Your task to perform on an android device: Clear the shopping cart on walmart. Search for macbook pro 15 inch on walmart, select the first entry, add it to the cart, then select checkout. Image 0: 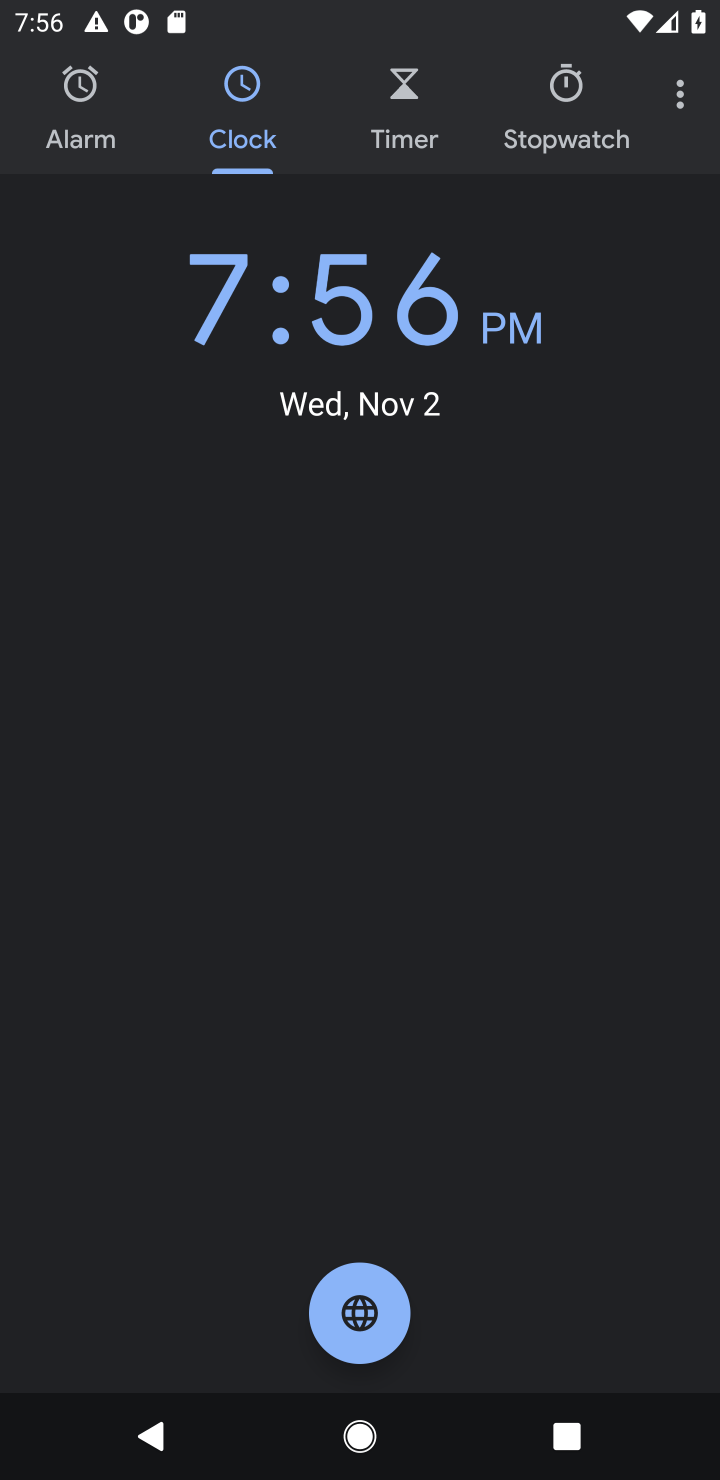
Step 0: press home button
Your task to perform on an android device: Clear the shopping cart on walmart. Search for macbook pro 15 inch on walmart, select the first entry, add it to the cart, then select checkout. Image 1: 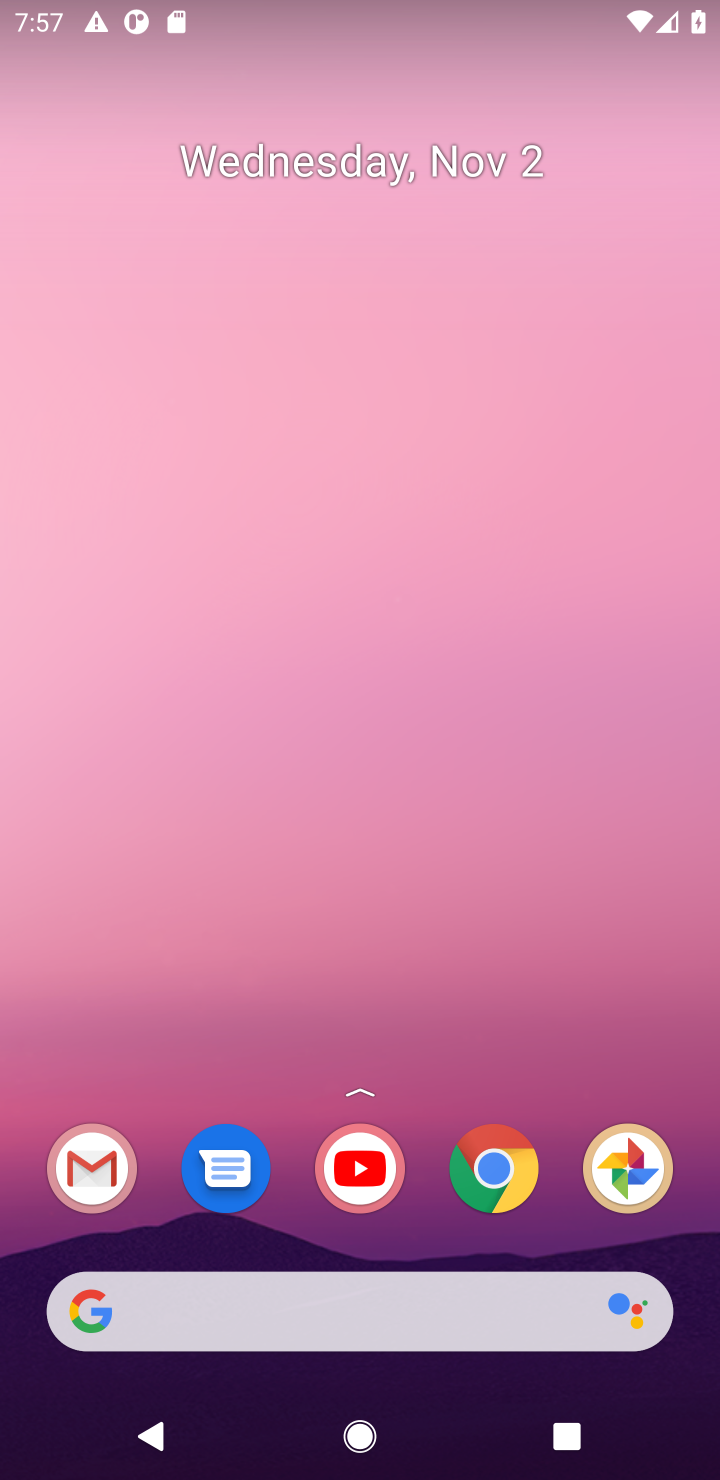
Step 1: click (497, 1168)
Your task to perform on an android device: Clear the shopping cart on walmart. Search for macbook pro 15 inch on walmart, select the first entry, add it to the cart, then select checkout. Image 2: 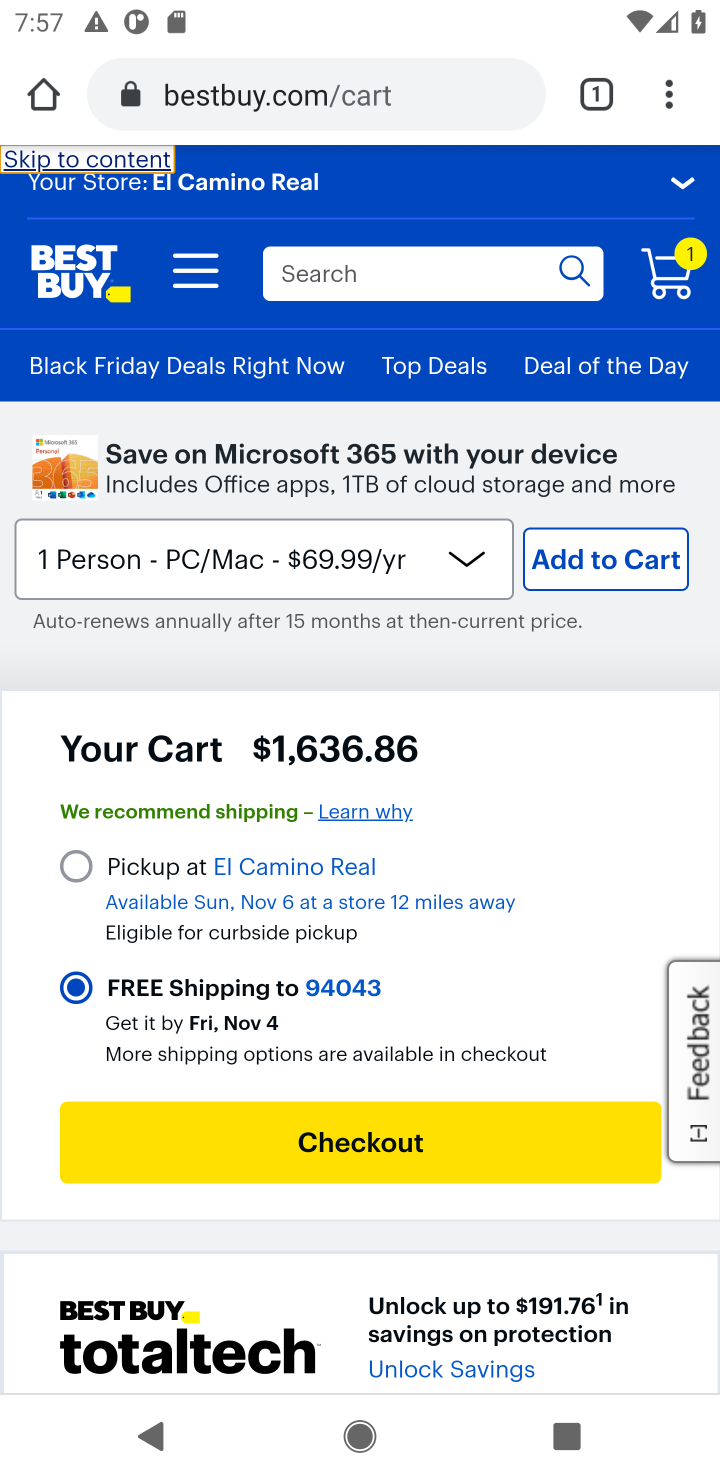
Step 2: click (404, 107)
Your task to perform on an android device: Clear the shopping cart on walmart. Search for macbook pro 15 inch on walmart, select the first entry, add it to the cart, then select checkout. Image 3: 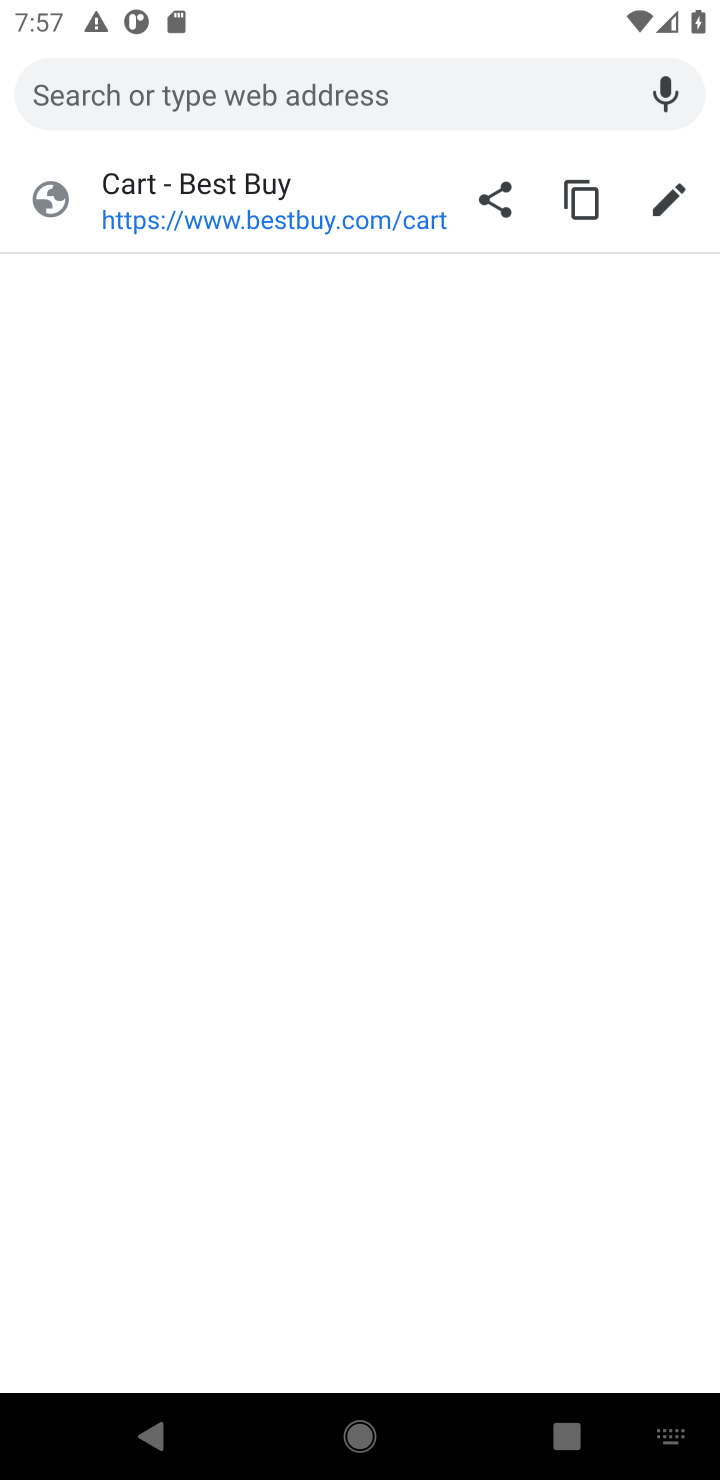
Step 3: type "walmart"
Your task to perform on an android device: Clear the shopping cart on walmart. Search for macbook pro 15 inch on walmart, select the first entry, add it to the cart, then select checkout. Image 4: 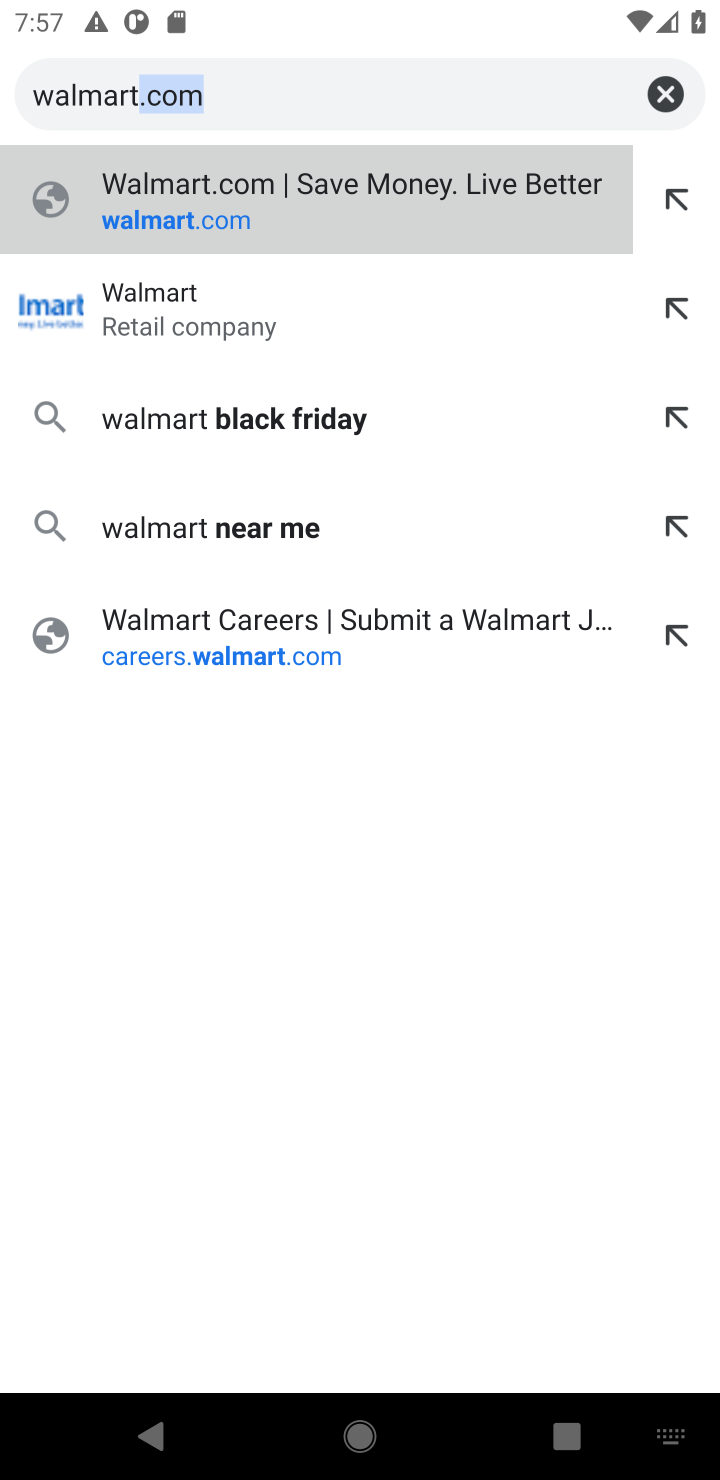
Step 4: click (182, 303)
Your task to perform on an android device: Clear the shopping cart on walmart. Search for macbook pro 15 inch on walmart, select the first entry, add it to the cart, then select checkout. Image 5: 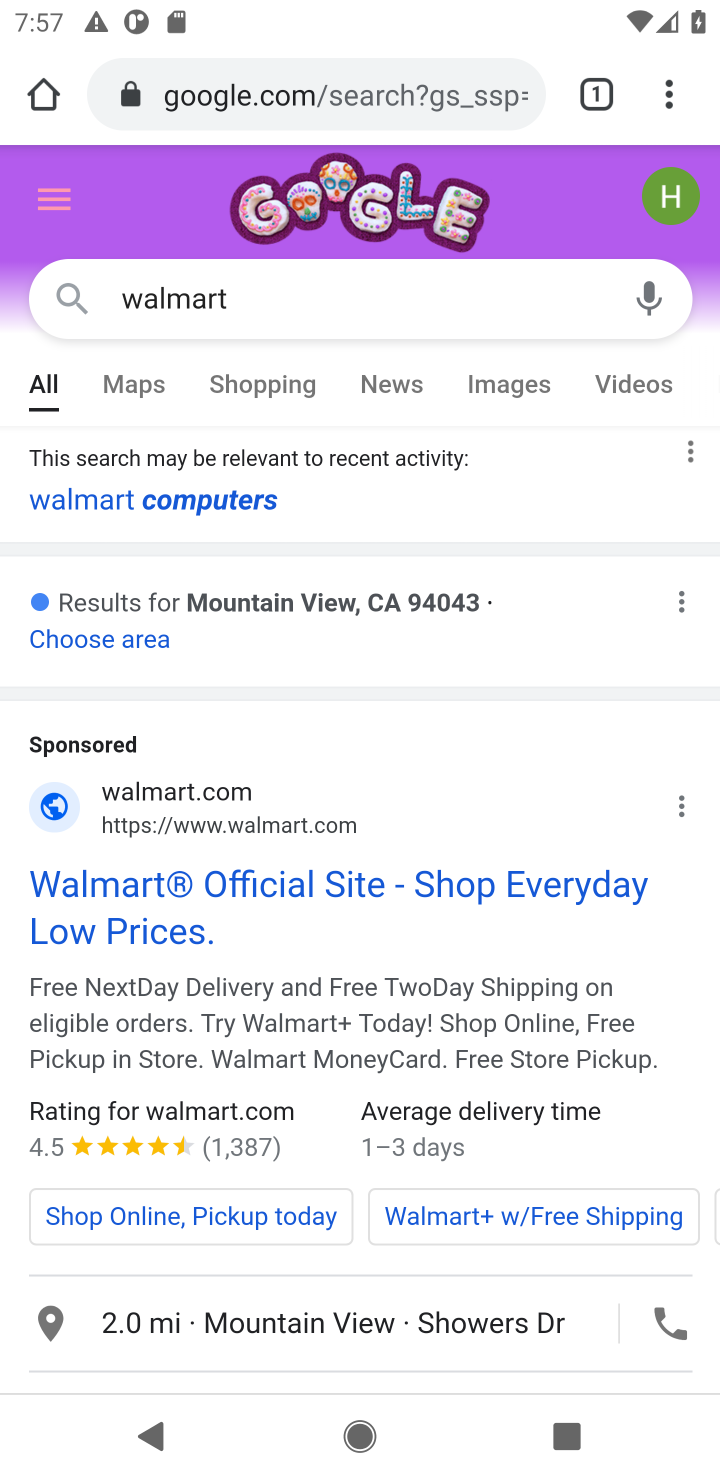
Step 5: drag from (320, 881) to (399, 412)
Your task to perform on an android device: Clear the shopping cart on walmart. Search for macbook pro 15 inch on walmart, select the first entry, add it to the cart, then select checkout. Image 6: 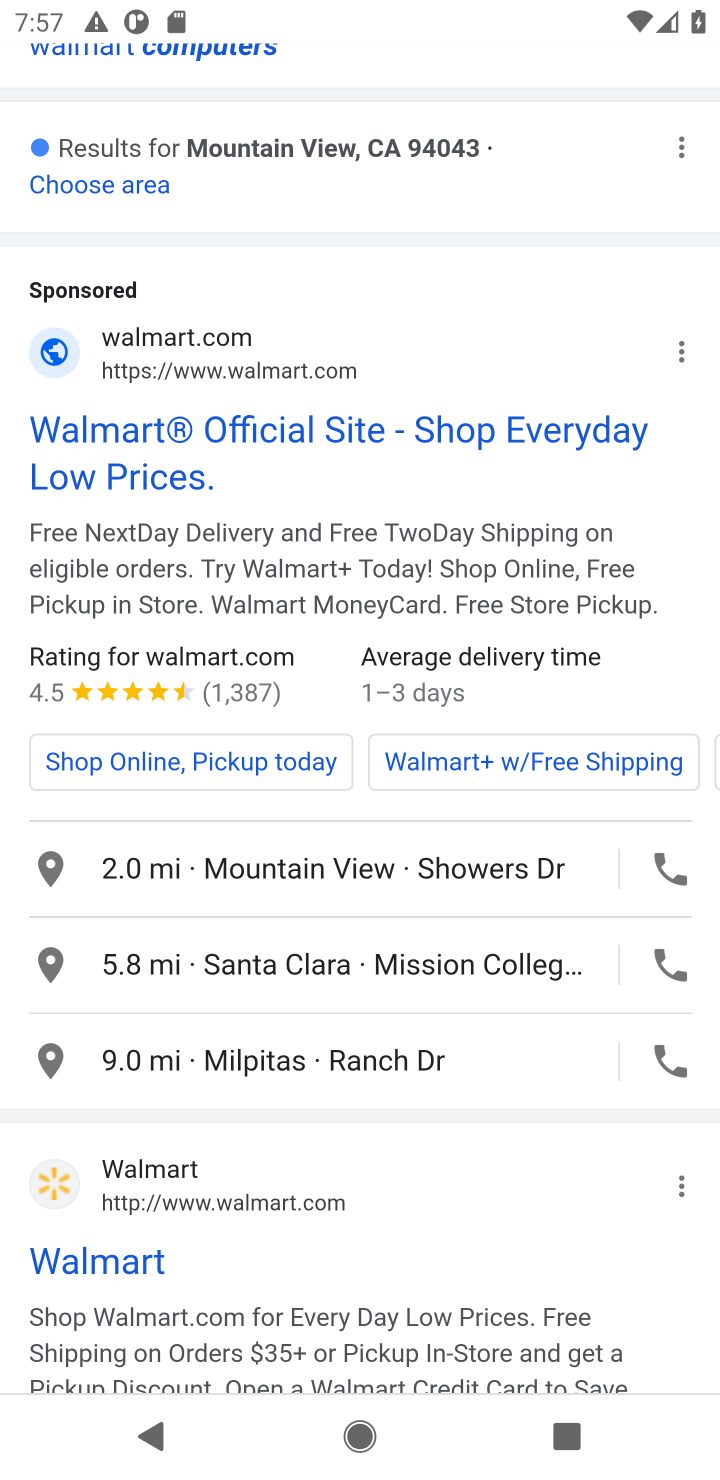
Step 6: click (263, 1260)
Your task to perform on an android device: Clear the shopping cart on walmart. Search for macbook pro 15 inch on walmart, select the first entry, add it to the cart, then select checkout. Image 7: 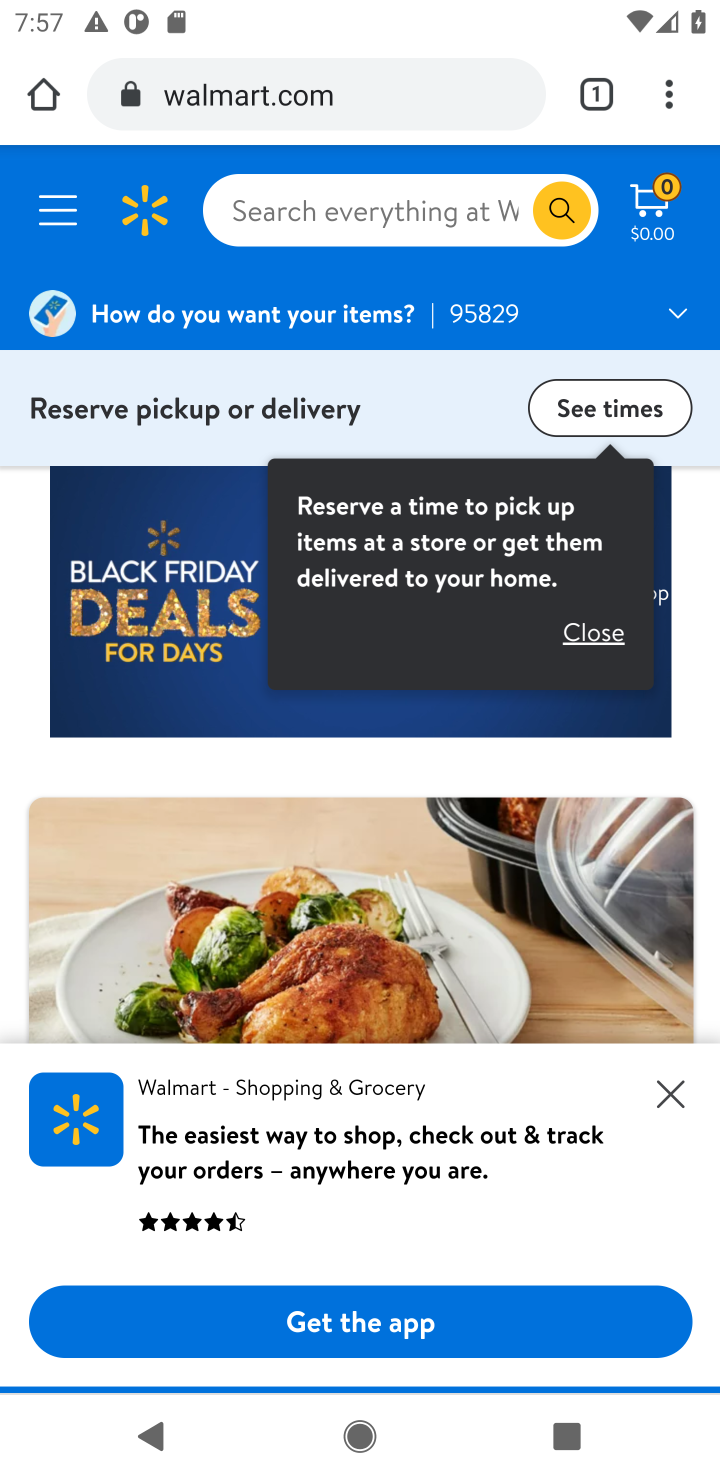
Step 7: click (653, 197)
Your task to perform on an android device: Clear the shopping cart on walmart. Search for macbook pro 15 inch on walmart, select the first entry, add it to the cart, then select checkout. Image 8: 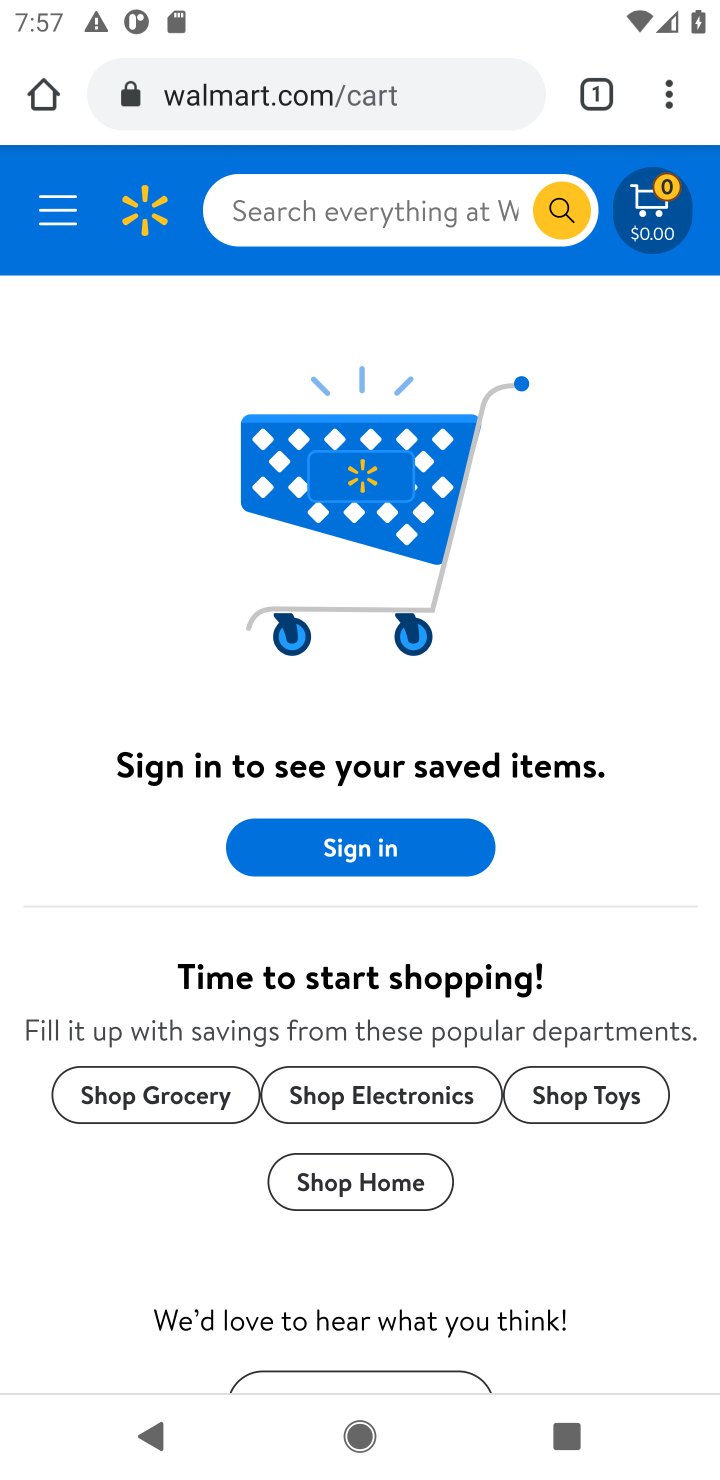
Step 8: click (374, 220)
Your task to perform on an android device: Clear the shopping cart on walmart. Search for macbook pro 15 inch on walmart, select the first entry, add it to the cart, then select checkout. Image 9: 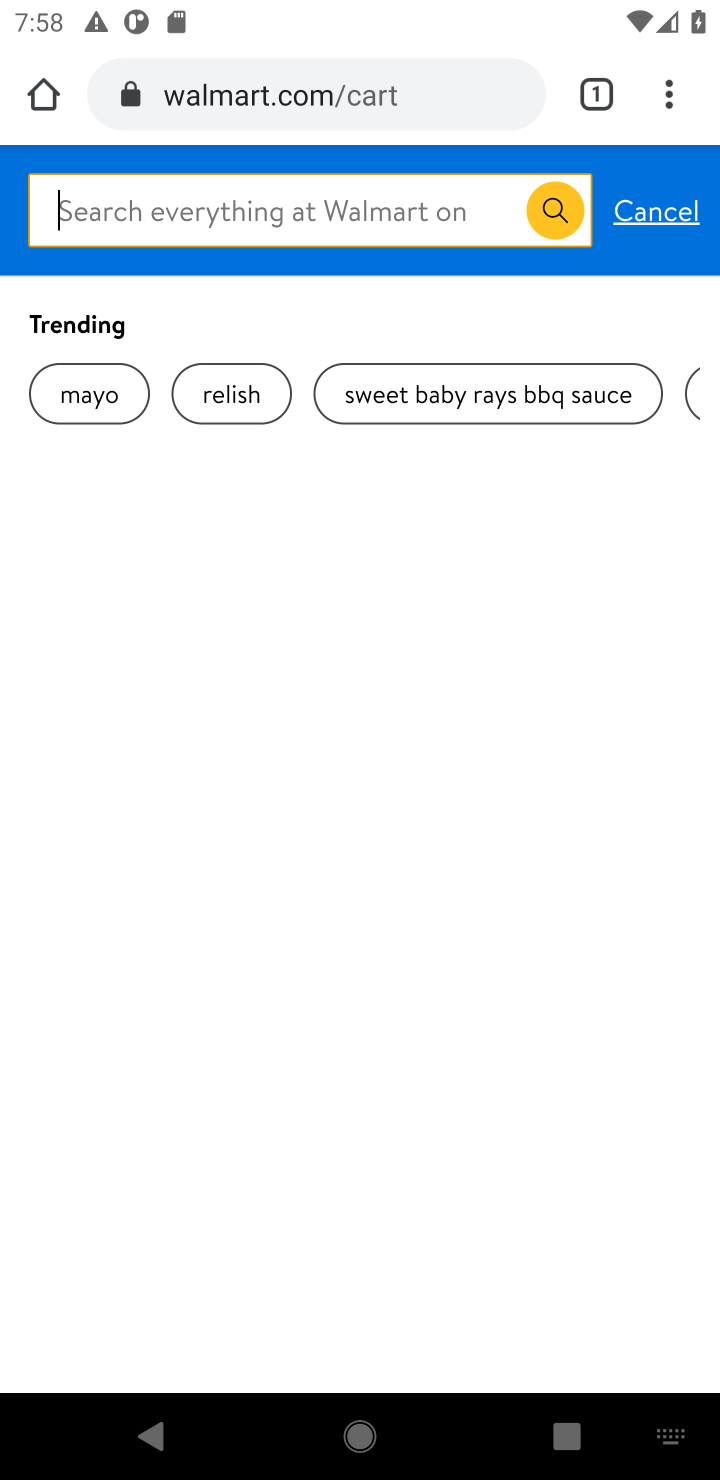
Step 9: type "macbook pro 15 inch"
Your task to perform on an android device: Clear the shopping cart on walmart. Search for macbook pro 15 inch on walmart, select the first entry, add it to the cart, then select checkout. Image 10: 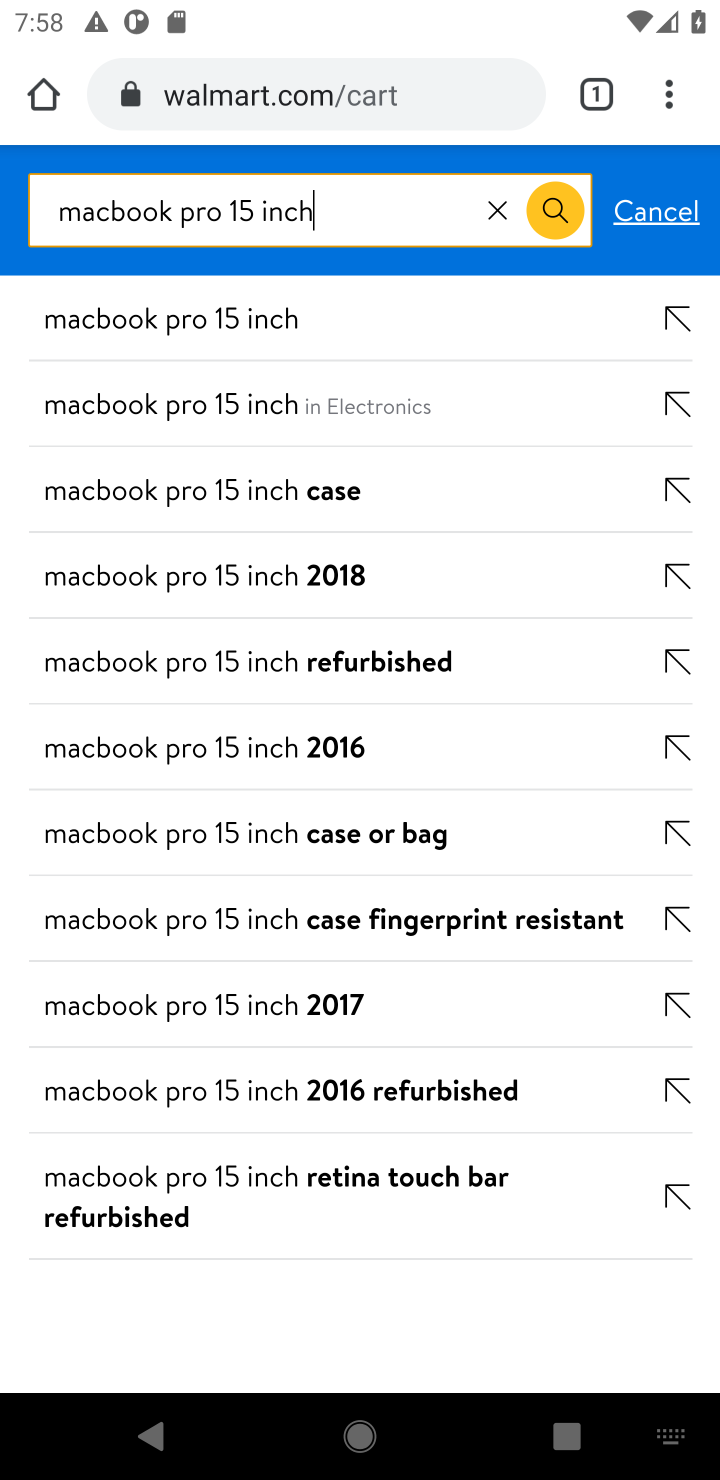
Step 10: click (553, 213)
Your task to perform on an android device: Clear the shopping cart on walmart. Search for macbook pro 15 inch on walmart, select the first entry, add it to the cart, then select checkout. Image 11: 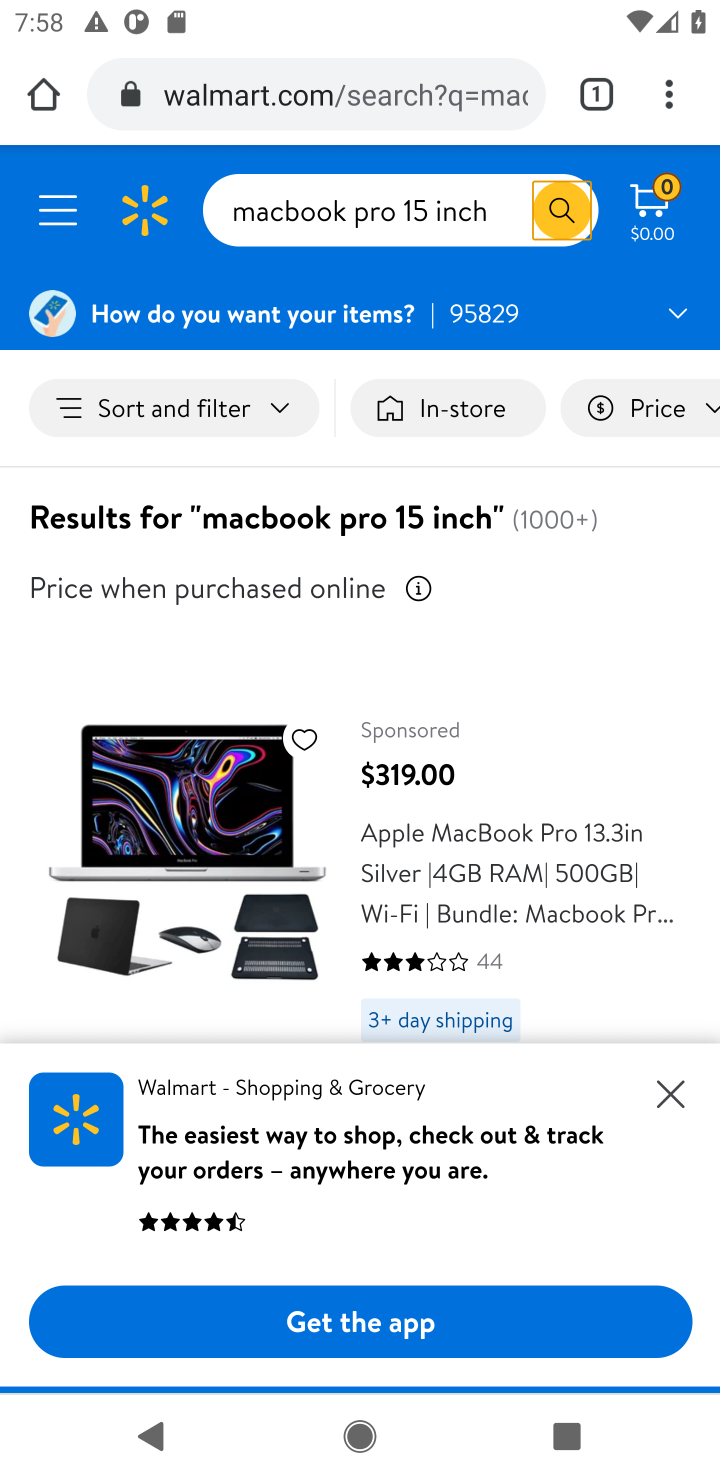
Step 11: click (481, 841)
Your task to perform on an android device: Clear the shopping cart on walmart. Search for macbook pro 15 inch on walmart, select the first entry, add it to the cart, then select checkout. Image 12: 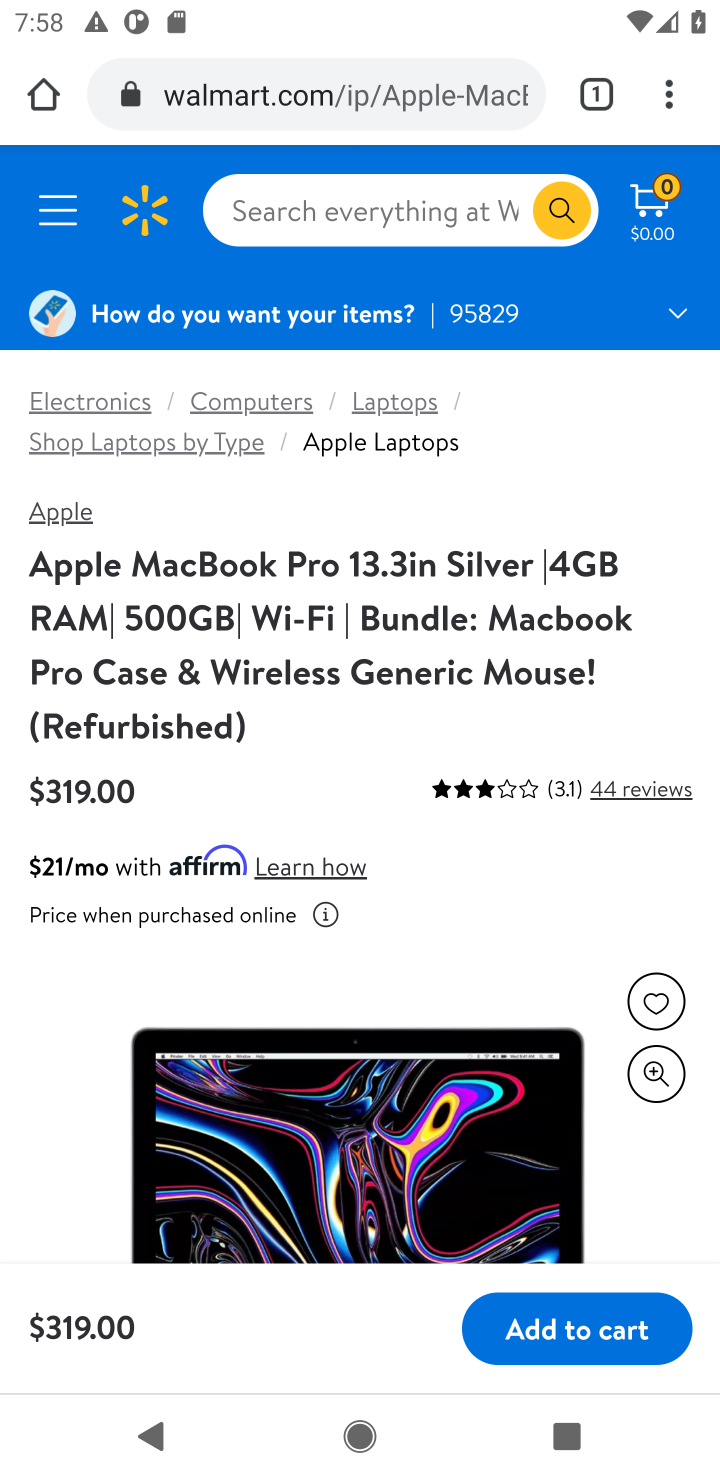
Step 12: click (555, 1330)
Your task to perform on an android device: Clear the shopping cart on walmart. Search for macbook pro 15 inch on walmart, select the first entry, add it to the cart, then select checkout. Image 13: 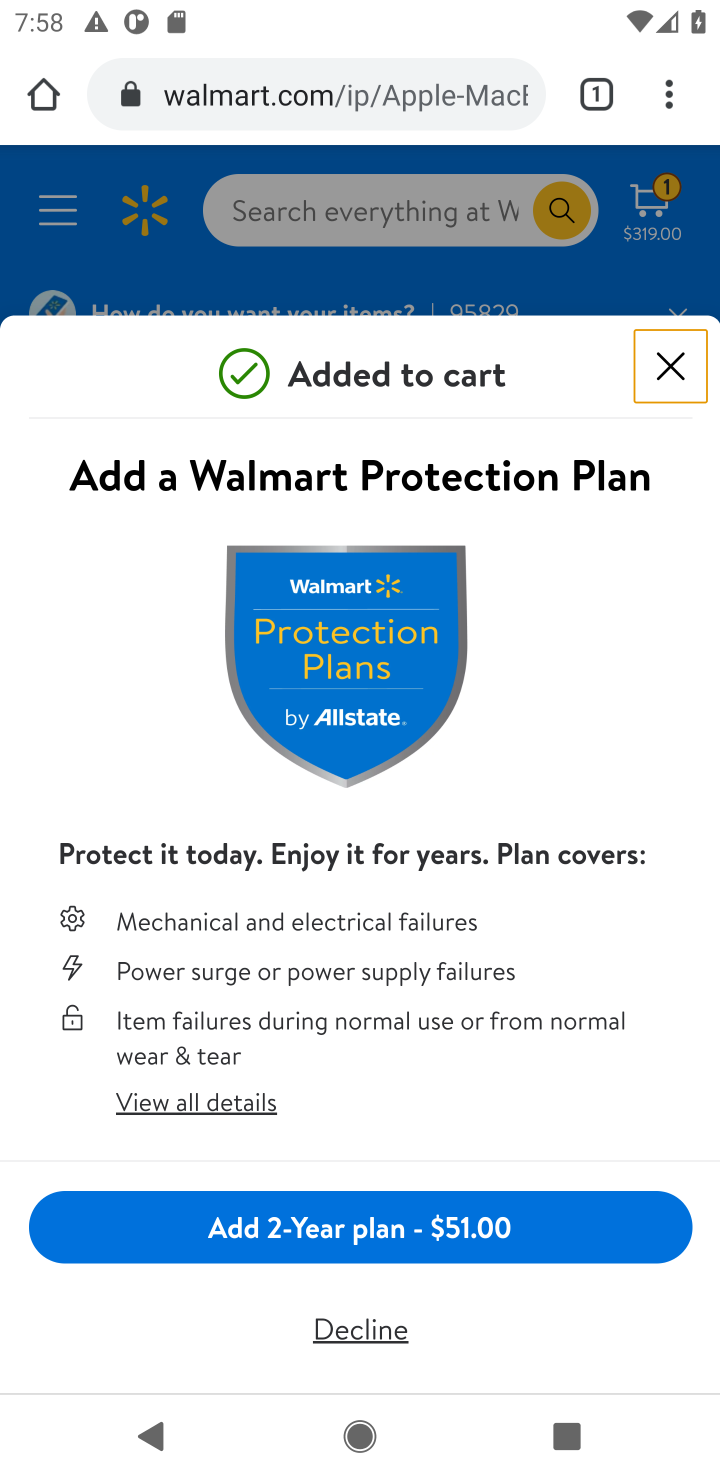
Step 13: click (369, 1324)
Your task to perform on an android device: Clear the shopping cart on walmart. Search for macbook pro 15 inch on walmart, select the first entry, add it to the cart, then select checkout. Image 14: 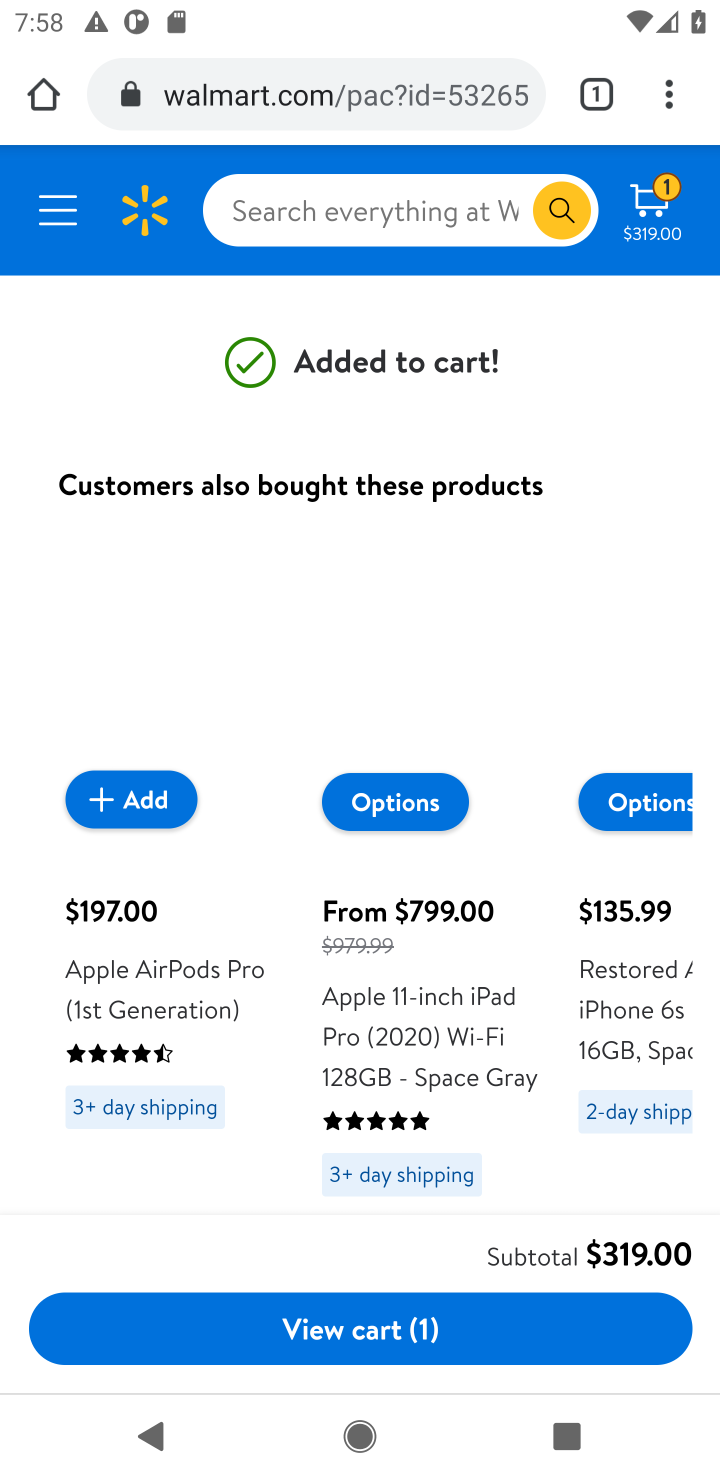
Step 14: click (664, 197)
Your task to perform on an android device: Clear the shopping cart on walmart. Search for macbook pro 15 inch on walmart, select the first entry, add it to the cart, then select checkout. Image 15: 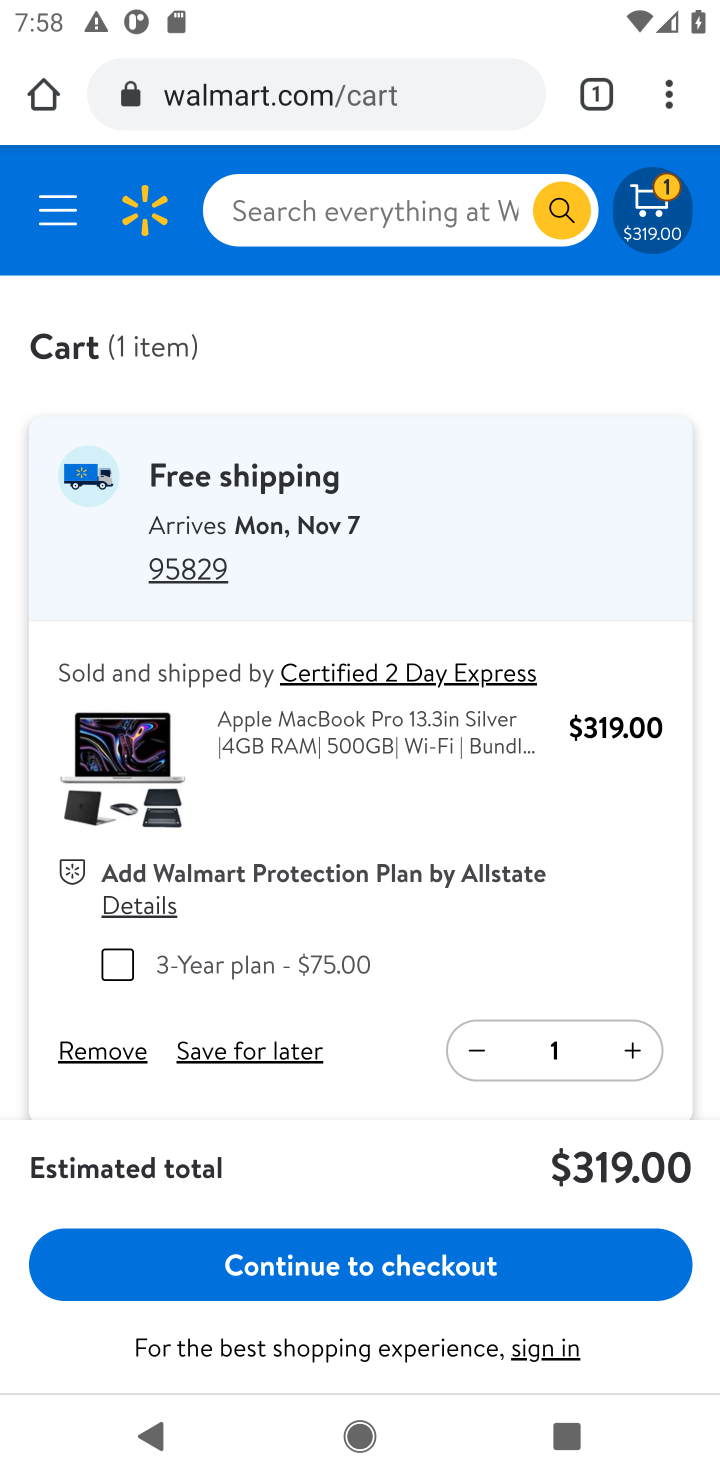
Step 15: click (350, 1271)
Your task to perform on an android device: Clear the shopping cart on walmart. Search for macbook pro 15 inch on walmart, select the first entry, add it to the cart, then select checkout. Image 16: 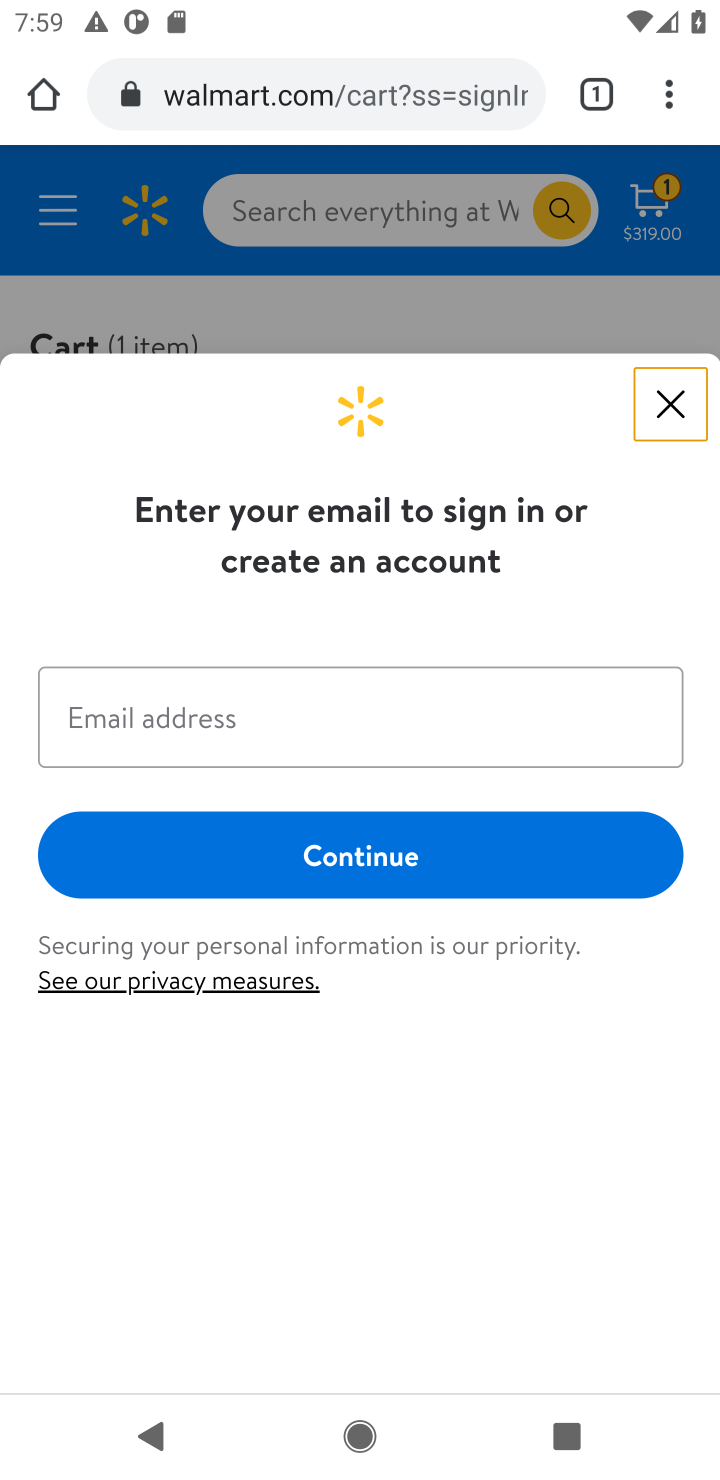
Step 16: task complete